Your task to perform on an android device: turn off wifi Image 0: 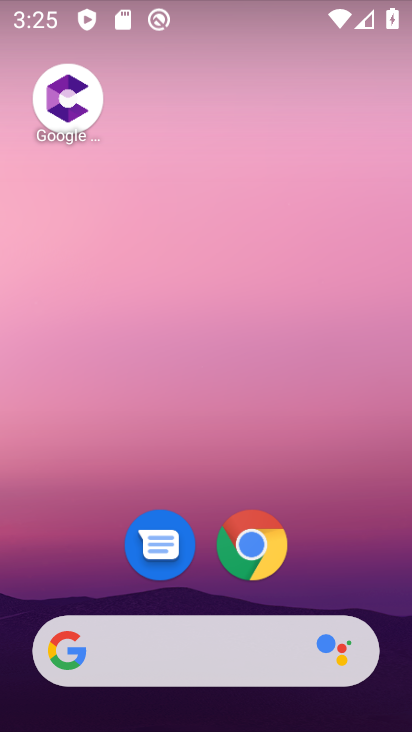
Step 0: drag from (101, 592) to (193, 106)
Your task to perform on an android device: turn off wifi Image 1: 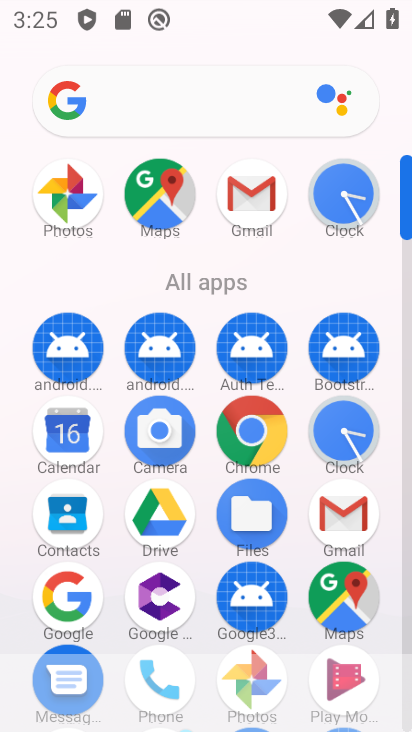
Step 1: drag from (179, 650) to (279, 304)
Your task to perform on an android device: turn off wifi Image 2: 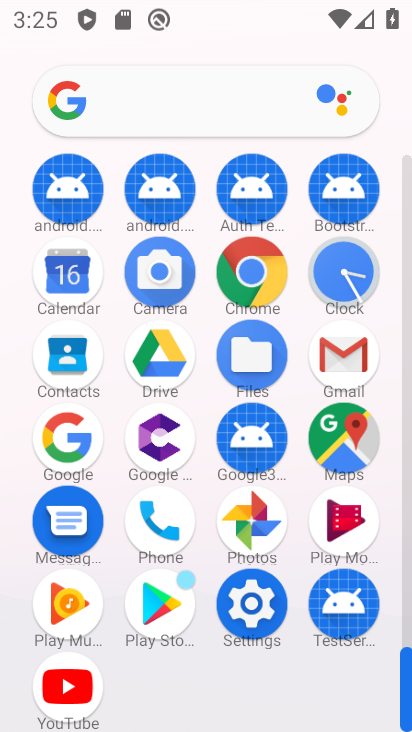
Step 2: click (247, 610)
Your task to perform on an android device: turn off wifi Image 3: 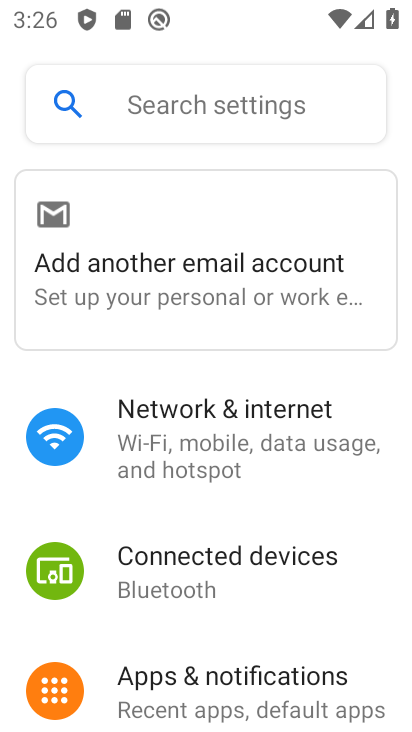
Step 3: click (197, 449)
Your task to perform on an android device: turn off wifi Image 4: 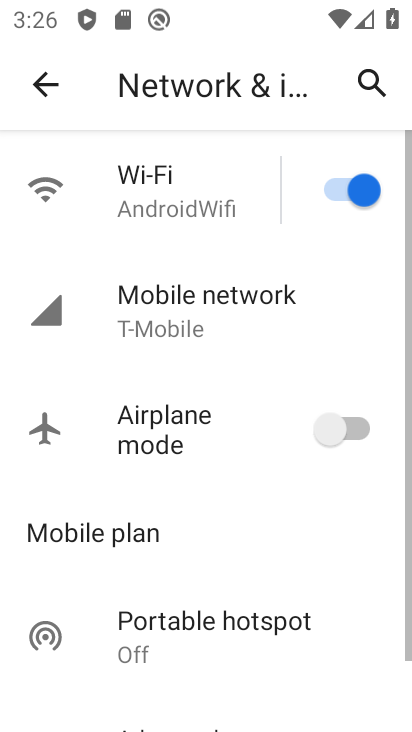
Step 4: click (329, 191)
Your task to perform on an android device: turn off wifi Image 5: 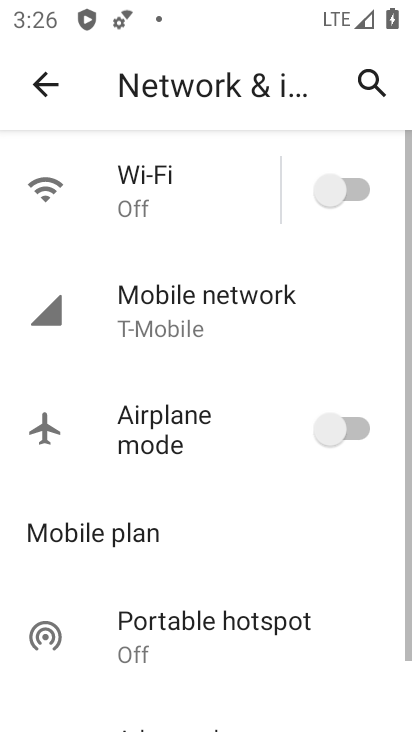
Step 5: task complete